Your task to perform on an android device: search for starred emails in the gmail app Image 0: 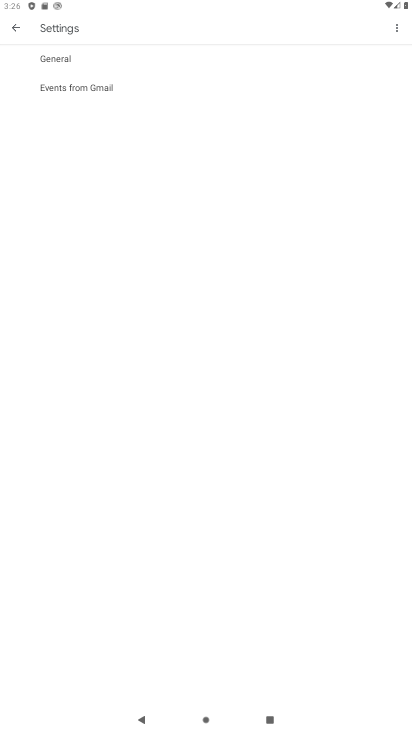
Step 0: press home button
Your task to perform on an android device: search for starred emails in the gmail app Image 1: 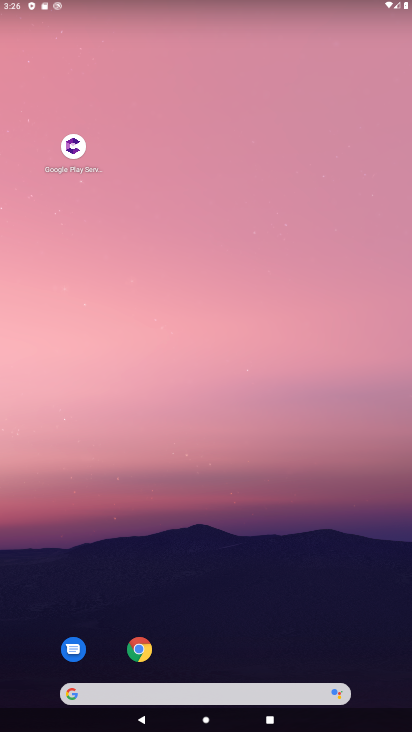
Step 1: drag from (174, 609) to (184, 203)
Your task to perform on an android device: search for starred emails in the gmail app Image 2: 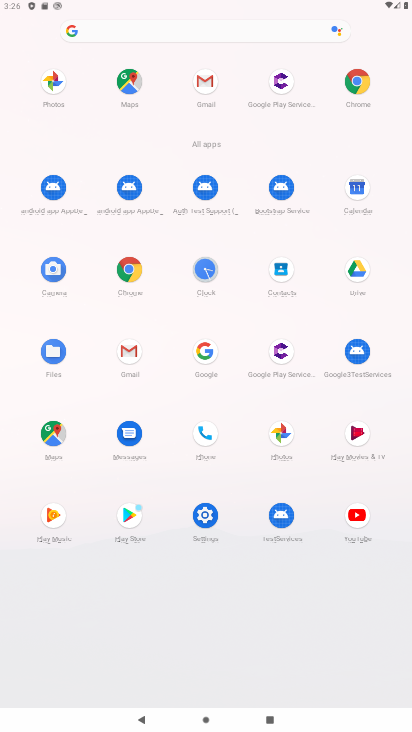
Step 2: drag from (199, 534) to (213, 114)
Your task to perform on an android device: search for starred emails in the gmail app Image 3: 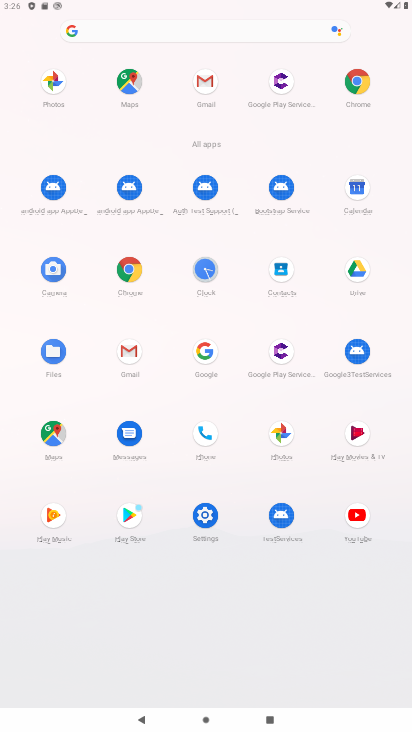
Step 3: click (125, 351)
Your task to perform on an android device: search for starred emails in the gmail app Image 4: 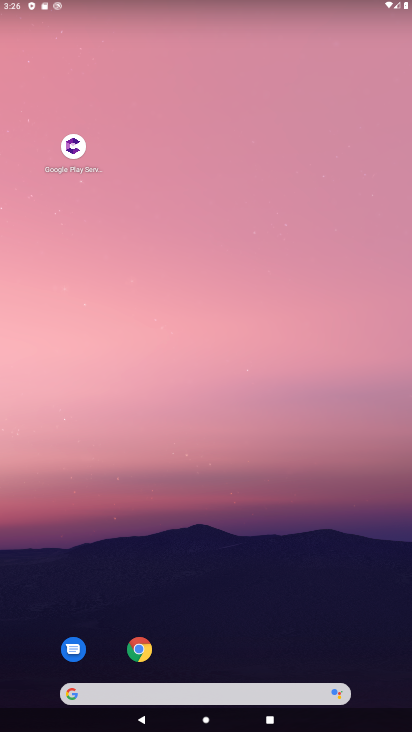
Step 4: drag from (183, 565) to (194, 138)
Your task to perform on an android device: search for starred emails in the gmail app Image 5: 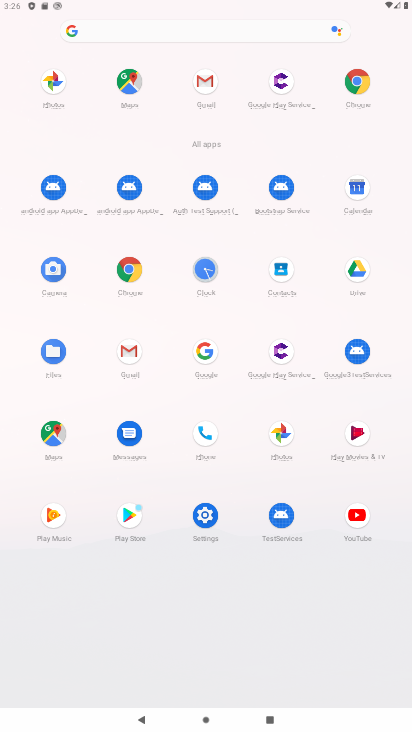
Step 5: click (131, 346)
Your task to perform on an android device: search for starred emails in the gmail app Image 6: 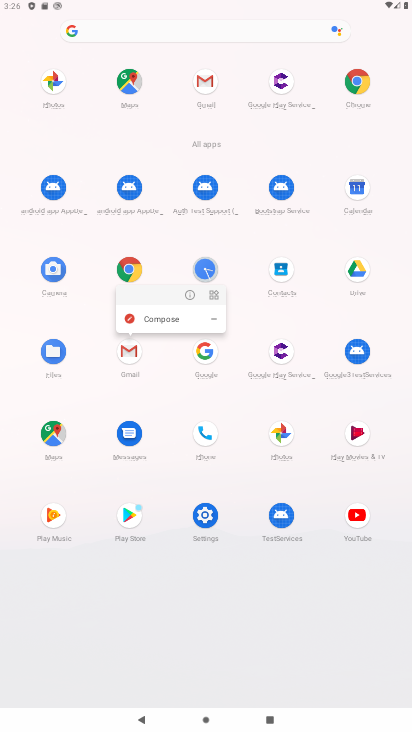
Step 6: click (191, 290)
Your task to perform on an android device: search for starred emails in the gmail app Image 7: 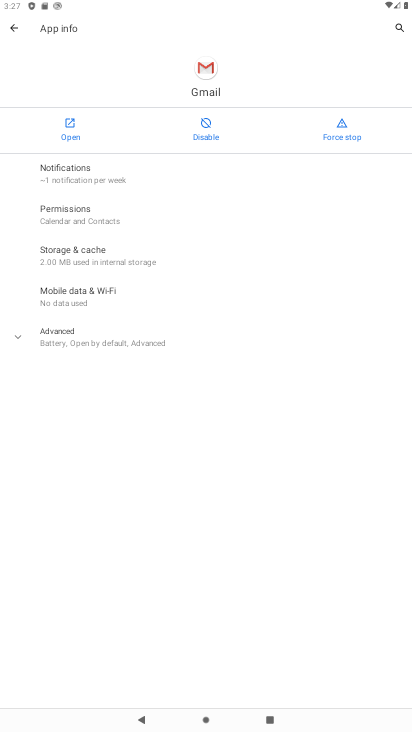
Step 7: drag from (234, 373) to (187, 141)
Your task to perform on an android device: search for starred emails in the gmail app Image 8: 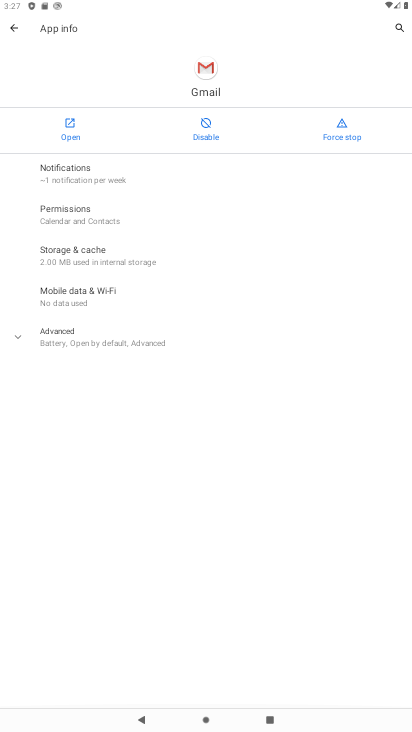
Step 8: click (70, 136)
Your task to perform on an android device: search for starred emails in the gmail app Image 9: 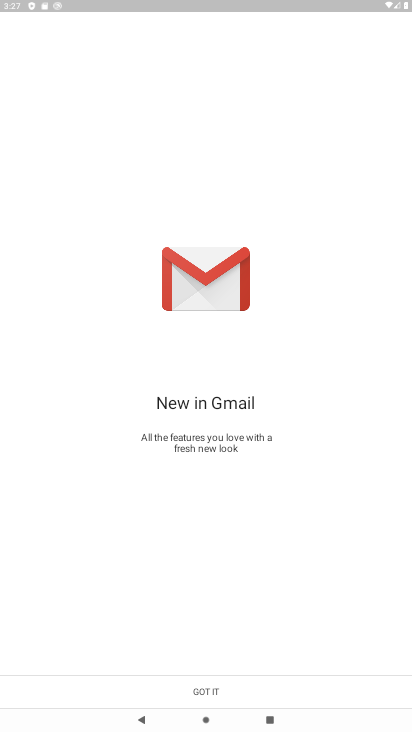
Step 9: click (204, 691)
Your task to perform on an android device: search for starred emails in the gmail app Image 10: 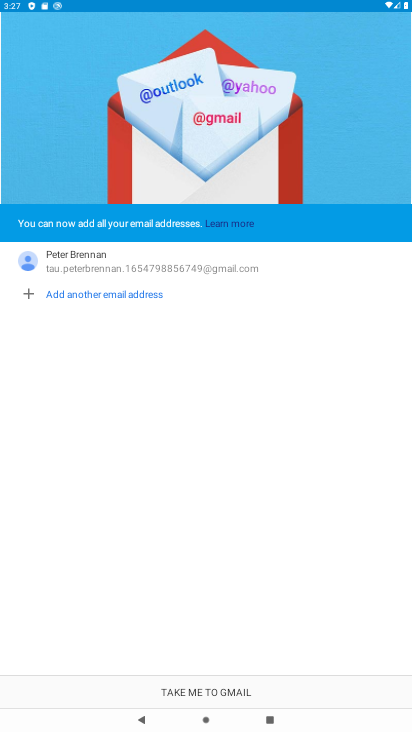
Step 10: click (232, 697)
Your task to perform on an android device: search for starred emails in the gmail app Image 11: 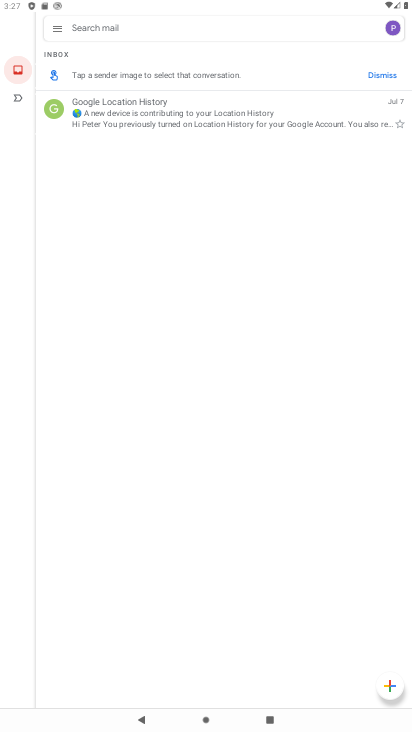
Step 11: click (49, 32)
Your task to perform on an android device: search for starred emails in the gmail app Image 12: 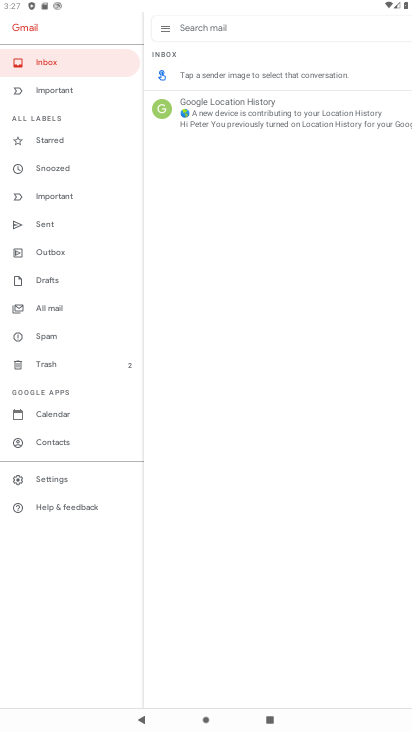
Step 12: click (49, 143)
Your task to perform on an android device: search for starred emails in the gmail app Image 13: 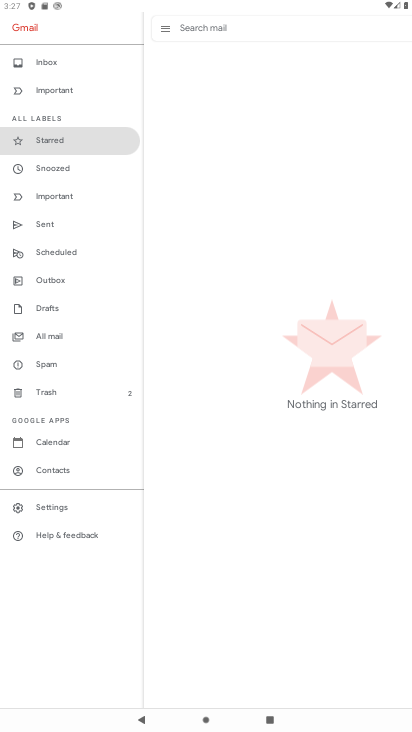
Step 13: task complete